Your task to perform on an android device: turn on wifi Image 0: 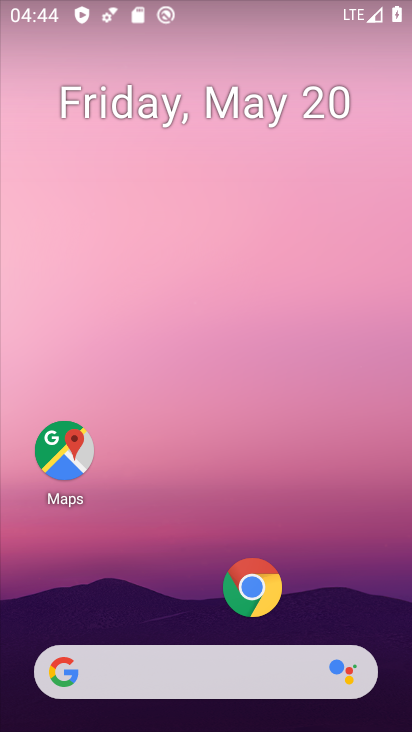
Step 0: click (263, 603)
Your task to perform on an android device: turn on wifi Image 1: 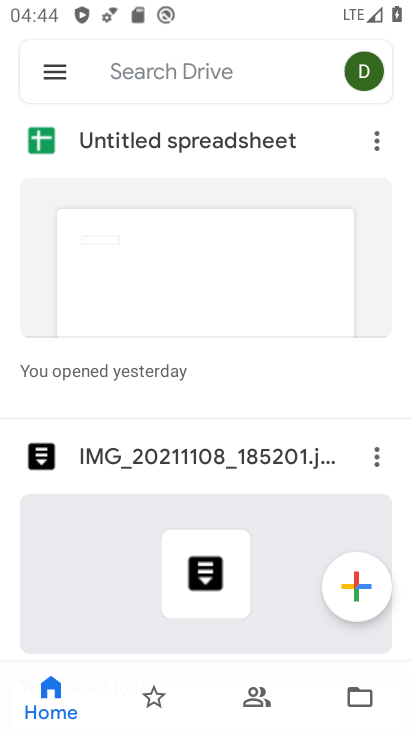
Step 1: drag from (249, 12) to (243, 464)
Your task to perform on an android device: turn on wifi Image 2: 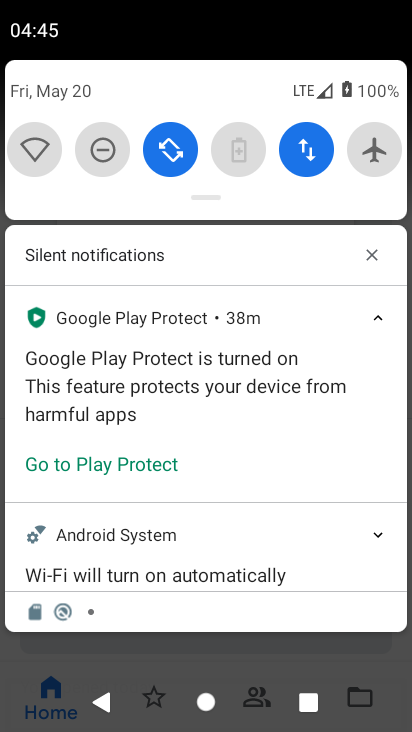
Step 2: click (40, 163)
Your task to perform on an android device: turn on wifi Image 3: 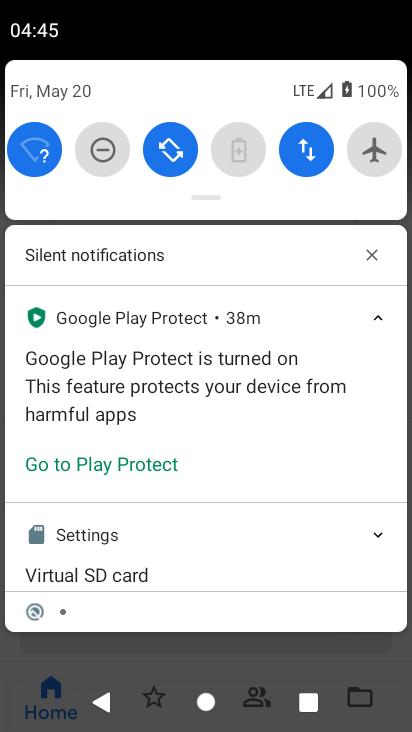
Step 3: task complete